Your task to perform on an android device: Open CNN.com Image 0: 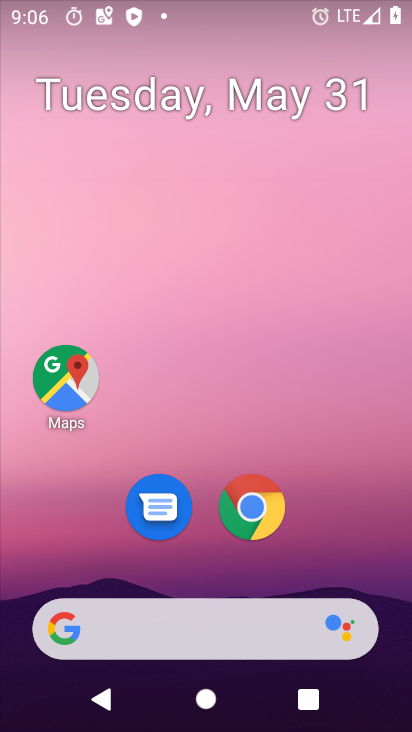
Step 0: click (249, 488)
Your task to perform on an android device: Open CNN.com Image 1: 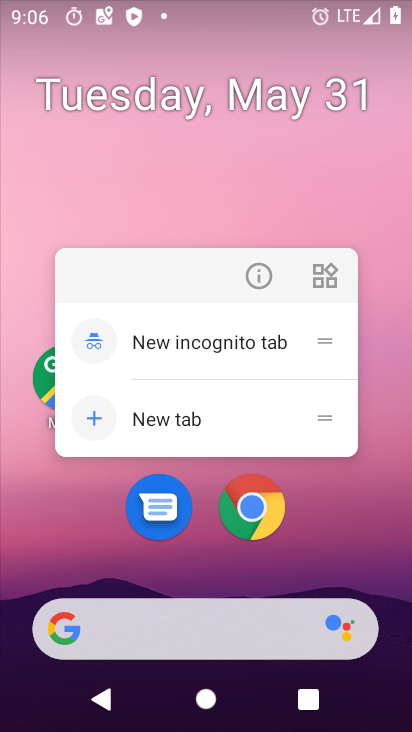
Step 1: click (263, 519)
Your task to perform on an android device: Open CNN.com Image 2: 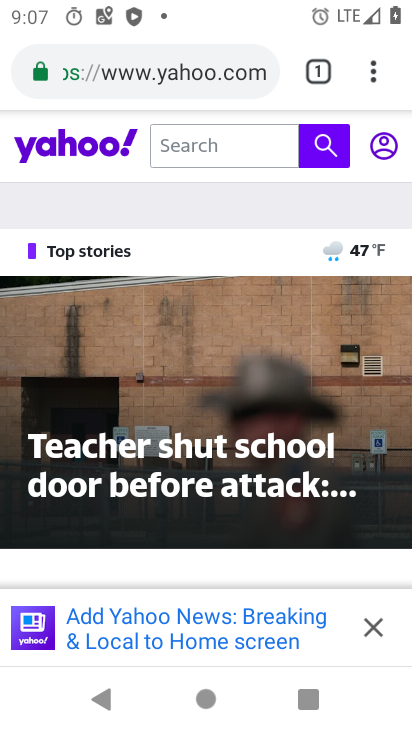
Step 2: click (319, 74)
Your task to perform on an android device: Open CNN.com Image 3: 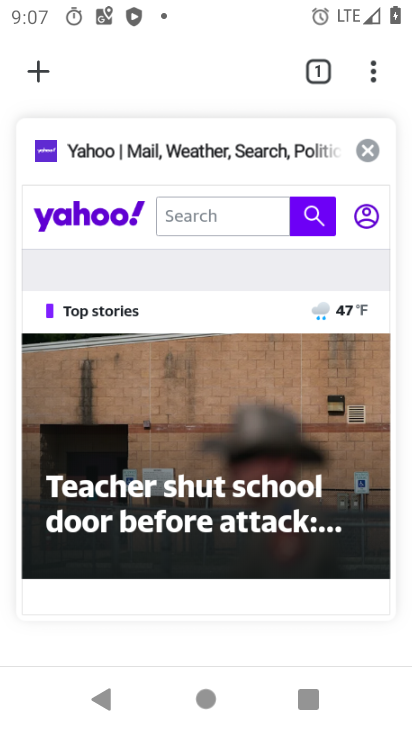
Step 3: click (368, 162)
Your task to perform on an android device: Open CNN.com Image 4: 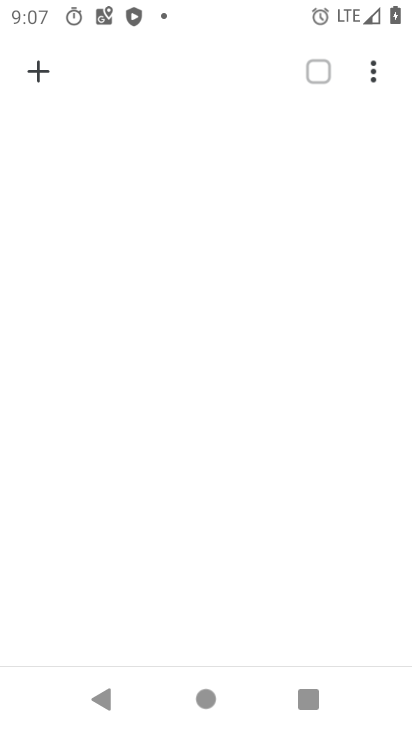
Step 4: click (29, 70)
Your task to perform on an android device: Open CNN.com Image 5: 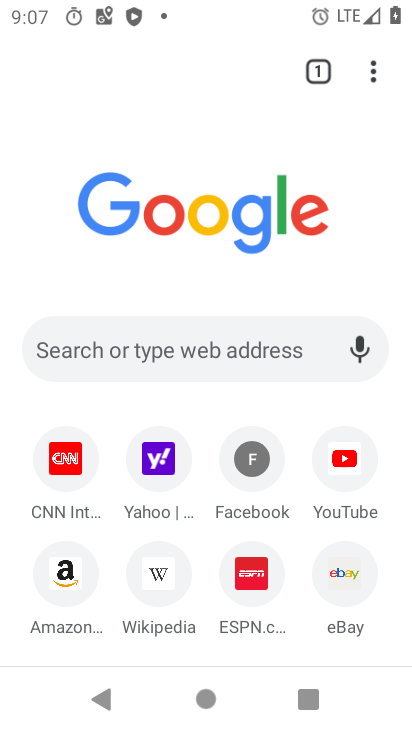
Step 5: click (209, 361)
Your task to perform on an android device: Open CNN.com Image 6: 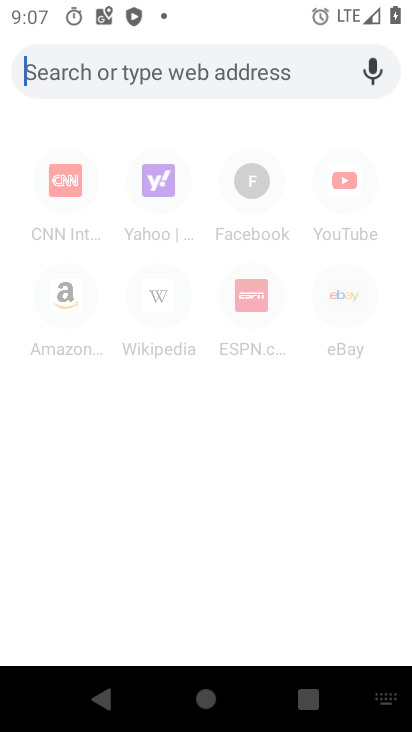
Step 6: type "CNN.com"
Your task to perform on an android device: Open CNN.com Image 7: 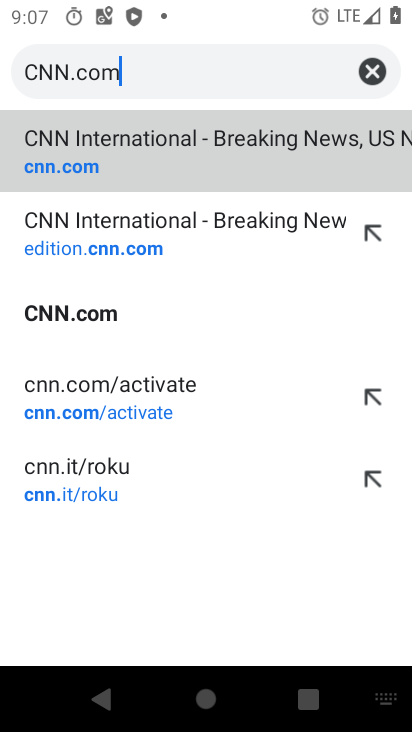
Step 7: type ""
Your task to perform on an android device: Open CNN.com Image 8: 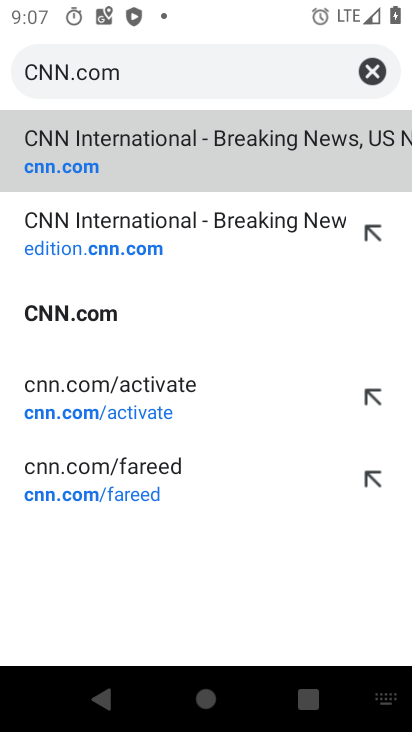
Step 8: click (140, 148)
Your task to perform on an android device: Open CNN.com Image 9: 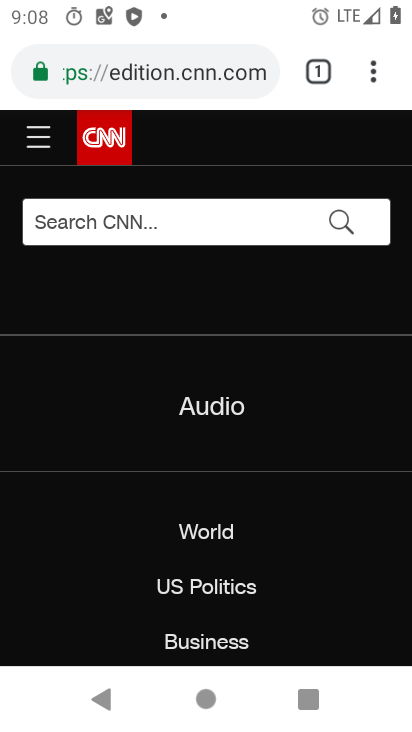
Step 9: task complete